Your task to perform on an android device: Go to settings Image 0: 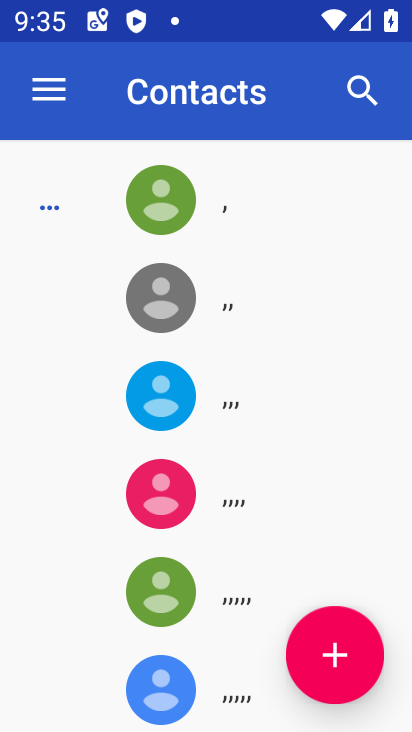
Step 0: press home button
Your task to perform on an android device: Go to settings Image 1: 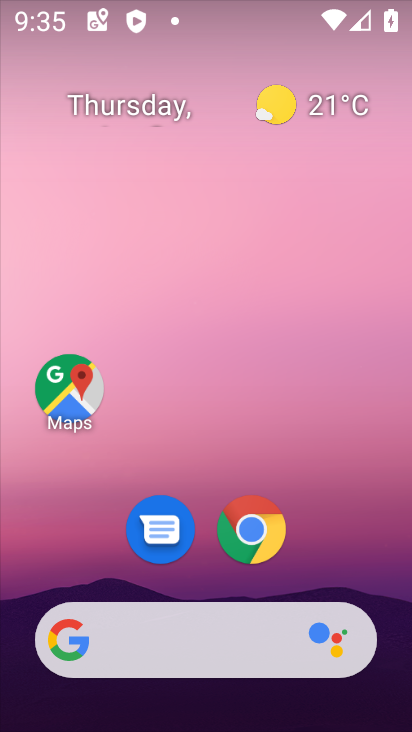
Step 1: drag from (249, 719) to (400, 8)
Your task to perform on an android device: Go to settings Image 2: 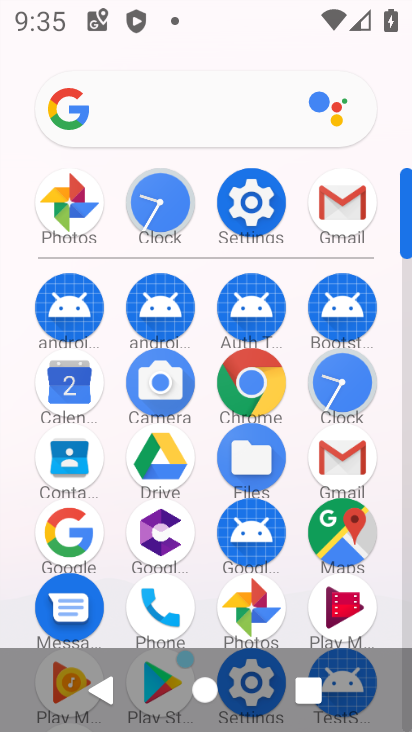
Step 2: click (248, 189)
Your task to perform on an android device: Go to settings Image 3: 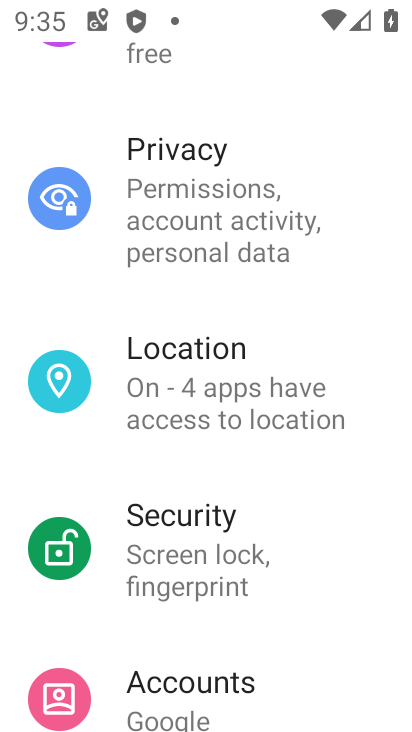
Step 3: task complete